Your task to perform on an android device: see sites visited before in the chrome app Image 0: 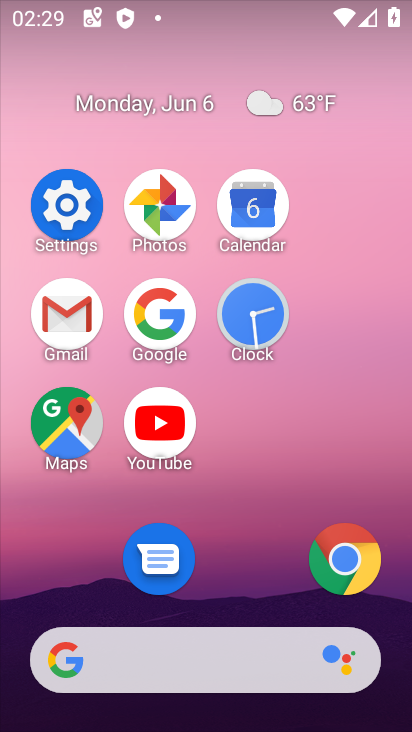
Step 0: click (329, 558)
Your task to perform on an android device: see sites visited before in the chrome app Image 1: 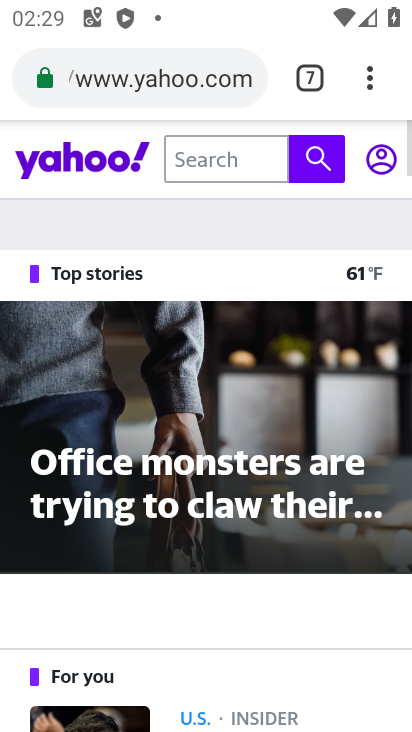
Step 1: click (360, 92)
Your task to perform on an android device: see sites visited before in the chrome app Image 2: 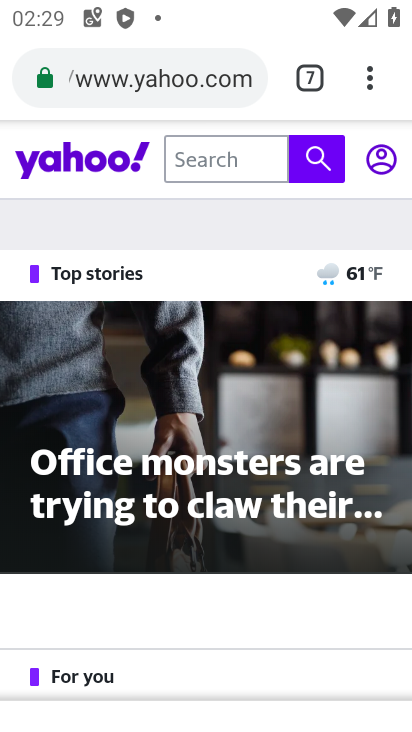
Step 2: click (375, 91)
Your task to perform on an android device: see sites visited before in the chrome app Image 3: 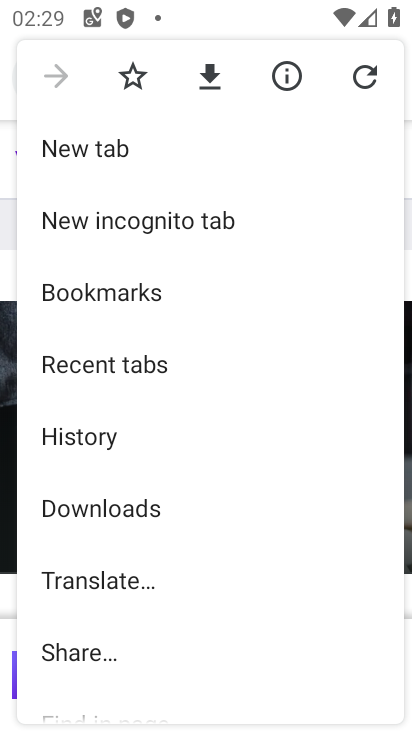
Step 3: click (94, 358)
Your task to perform on an android device: see sites visited before in the chrome app Image 4: 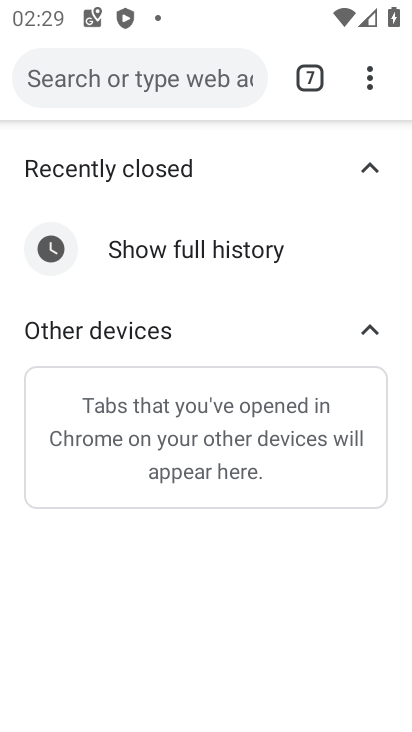
Step 4: task complete